Your task to perform on an android device: turn on sleep mode Image 0: 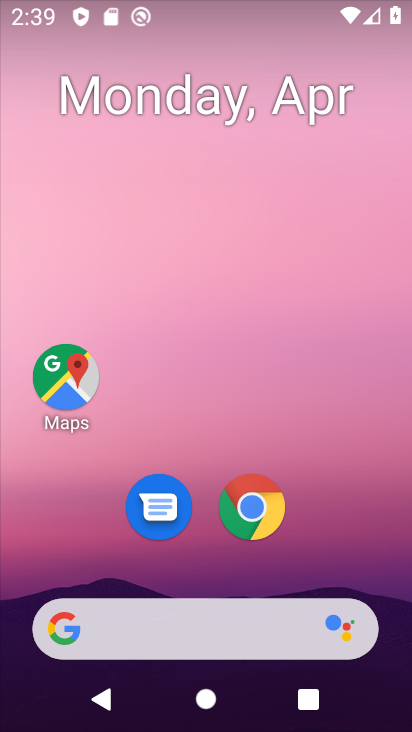
Step 0: drag from (351, 544) to (244, 114)
Your task to perform on an android device: turn on sleep mode Image 1: 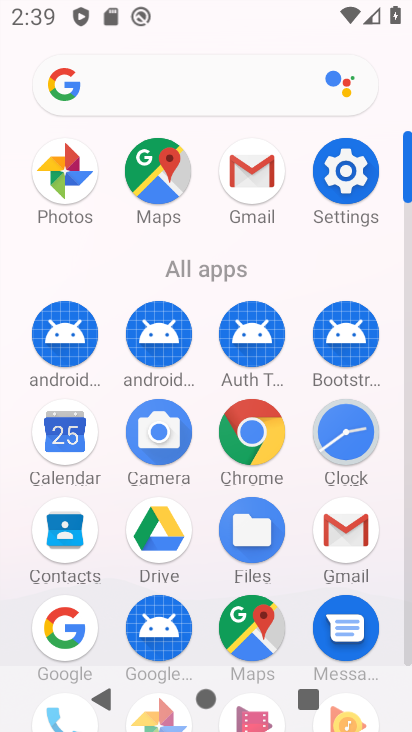
Step 1: click (348, 199)
Your task to perform on an android device: turn on sleep mode Image 2: 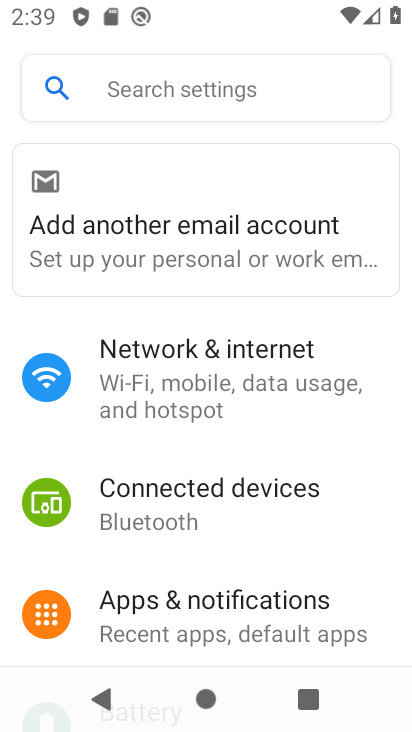
Step 2: drag from (333, 569) to (314, 253)
Your task to perform on an android device: turn on sleep mode Image 3: 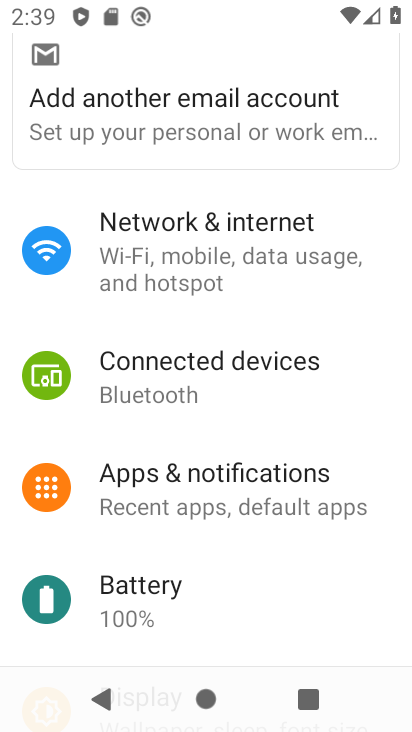
Step 3: drag from (319, 595) to (278, 258)
Your task to perform on an android device: turn on sleep mode Image 4: 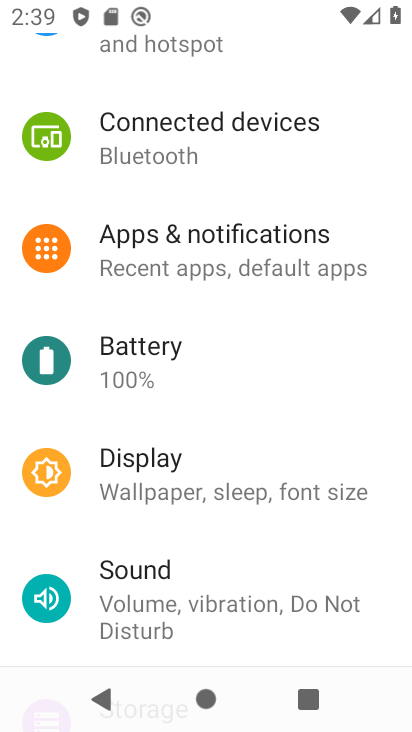
Step 4: click (279, 509)
Your task to perform on an android device: turn on sleep mode Image 5: 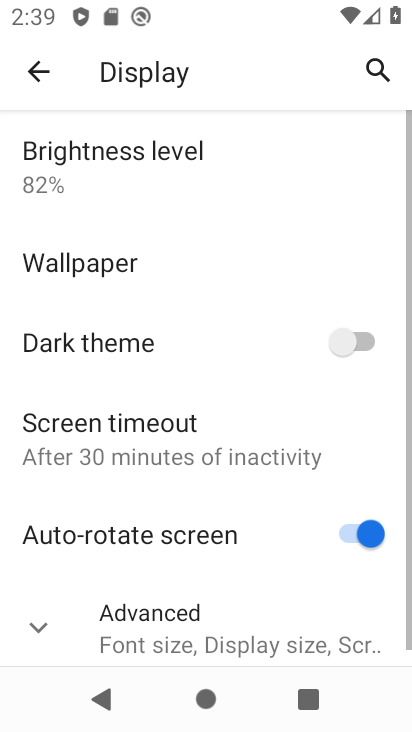
Step 5: drag from (279, 509) to (223, 178)
Your task to perform on an android device: turn on sleep mode Image 6: 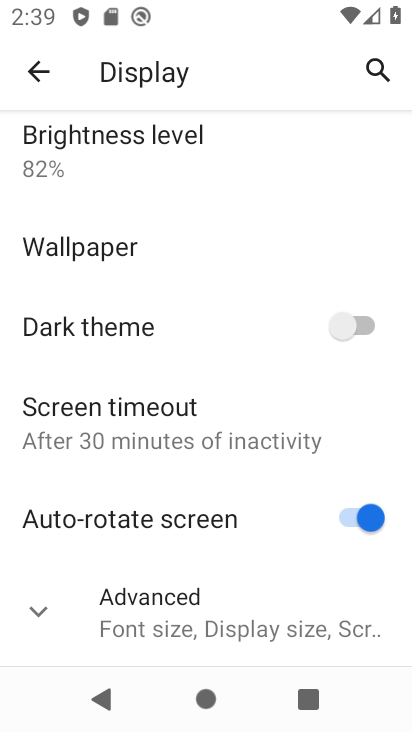
Step 6: click (255, 606)
Your task to perform on an android device: turn on sleep mode Image 7: 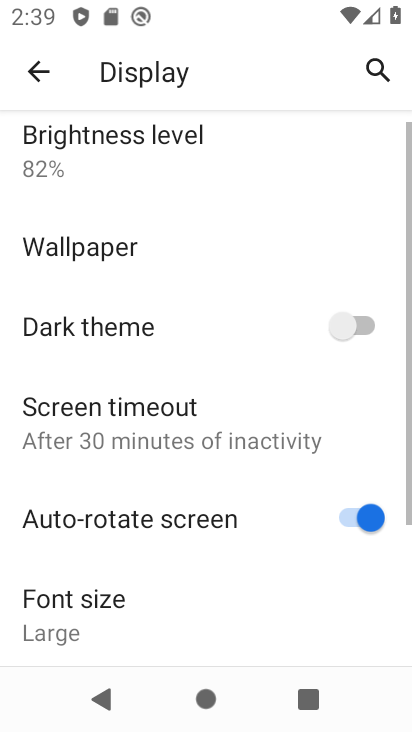
Step 7: task complete